Your task to perform on an android device: What is the recent news? Image 0: 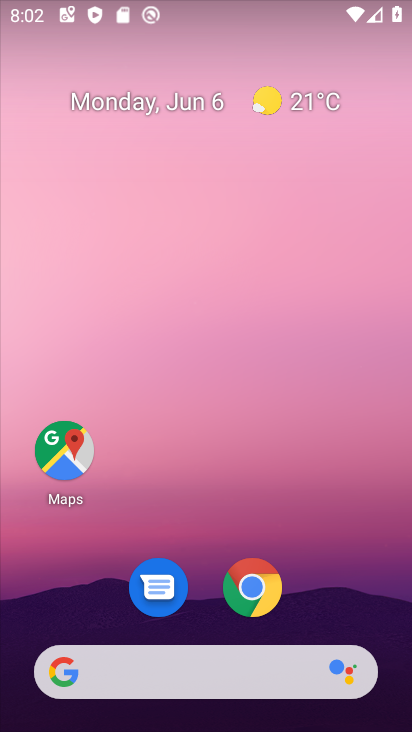
Step 0: click (262, 668)
Your task to perform on an android device: What is the recent news? Image 1: 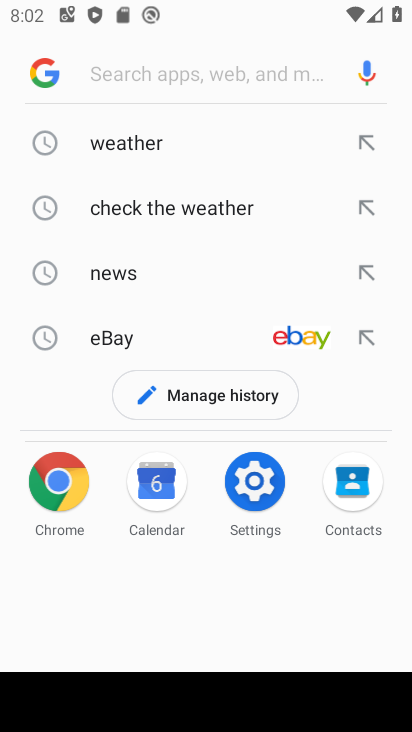
Step 1: type "recent news"
Your task to perform on an android device: What is the recent news? Image 2: 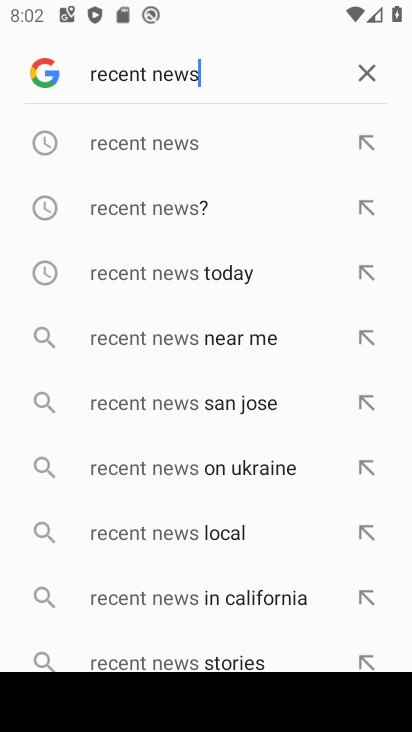
Step 2: click (205, 144)
Your task to perform on an android device: What is the recent news? Image 3: 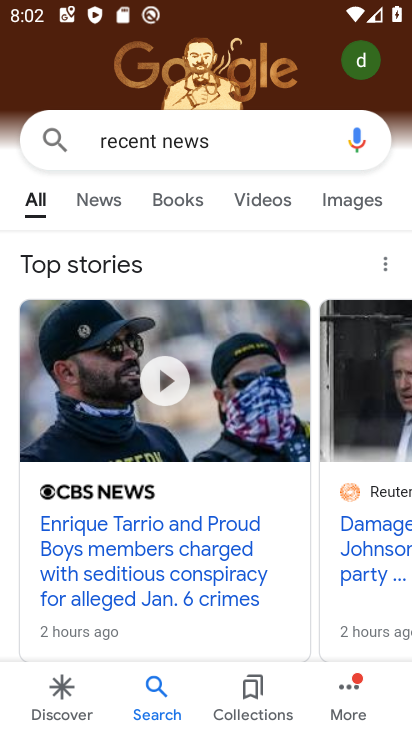
Step 3: task complete